Your task to perform on an android device: turn off wifi Image 0: 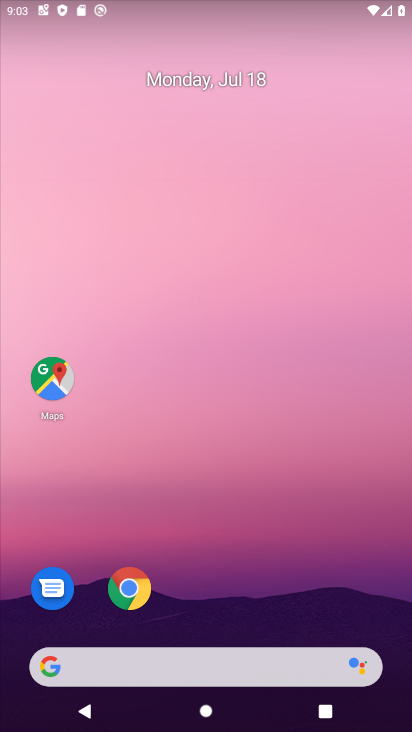
Step 0: drag from (249, 596) to (348, 0)
Your task to perform on an android device: turn off wifi Image 1: 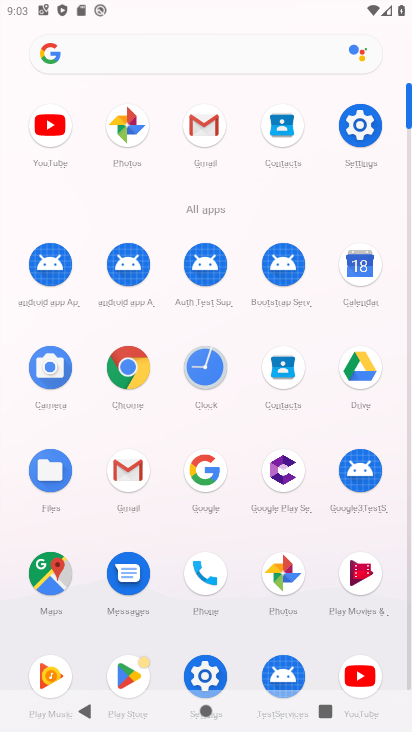
Step 1: click (353, 103)
Your task to perform on an android device: turn off wifi Image 2: 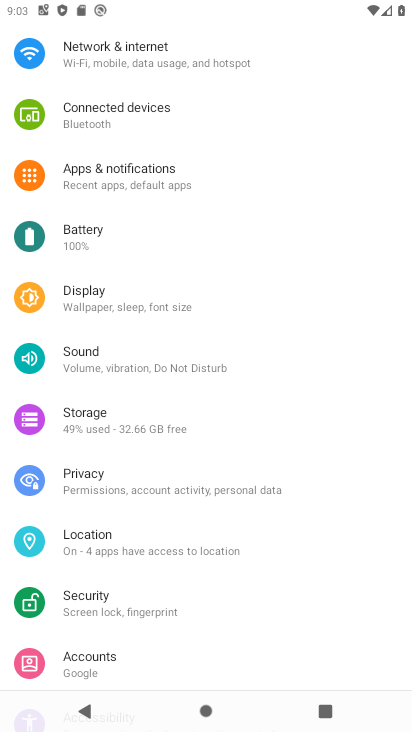
Step 2: click (148, 63)
Your task to perform on an android device: turn off wifi Image 3: 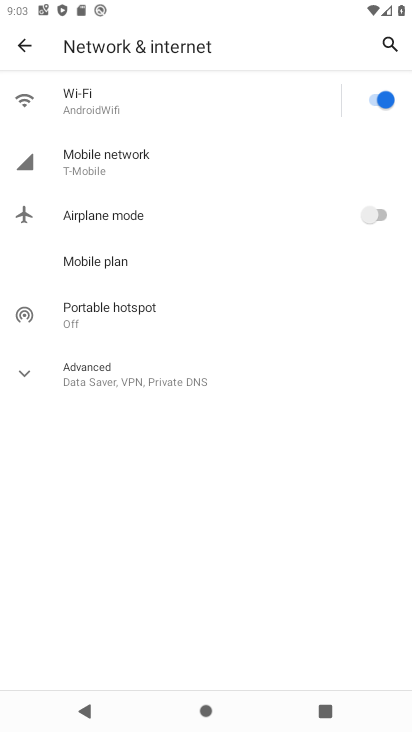
Step 3: click (387, 94)
Your task to perform on an android device: turn off wifi Image 4: 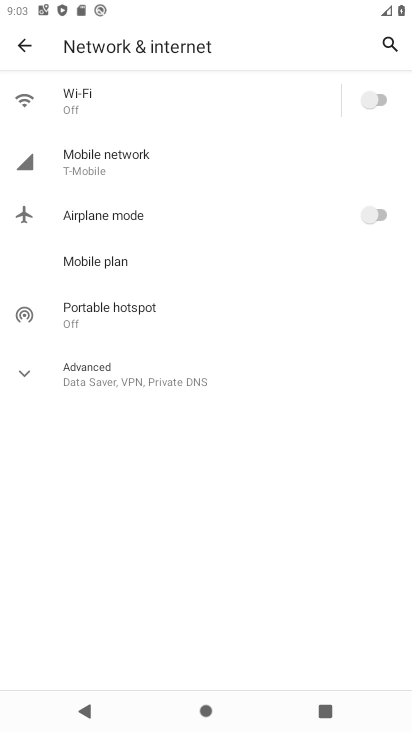
Step 4: task complete